Your task to perform on an android device: Open internet settings Image 0: 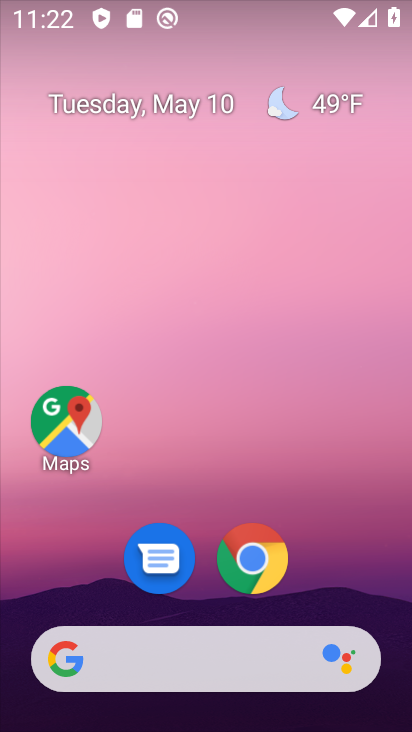
Step 0: drag from (310, 519) to (182, 81)
Your task to perform on an android device: Open internet settings Image 1: 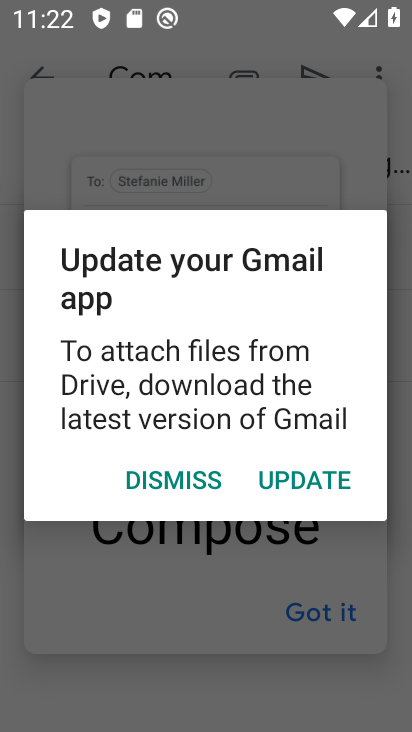
Step 1: press home button
Your task to perform on an android device: Open internet settings Image 2: 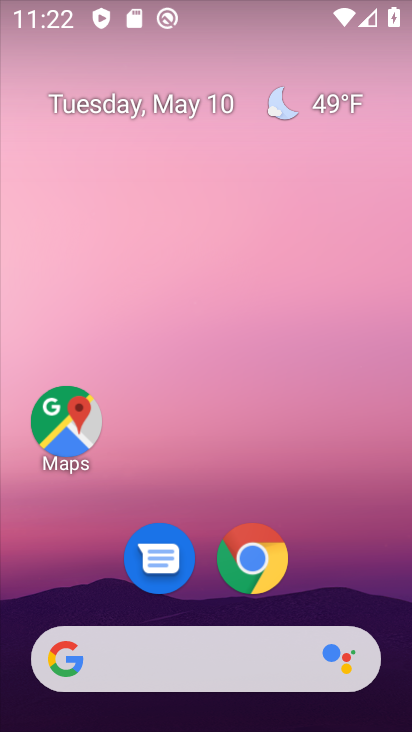
Step 2: drag from (338, 564) to (296, 47)
Your task to perform on an android device: Open internet settings Image 3: 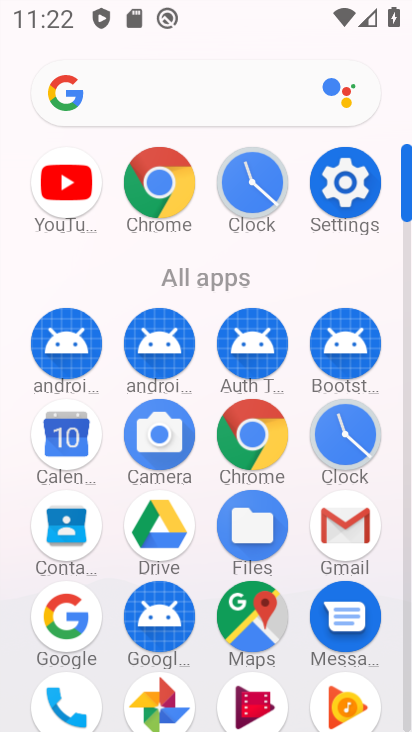
Step 3: click (319, 179)
Your task to perform on an android device: Open internet settings Image 4: 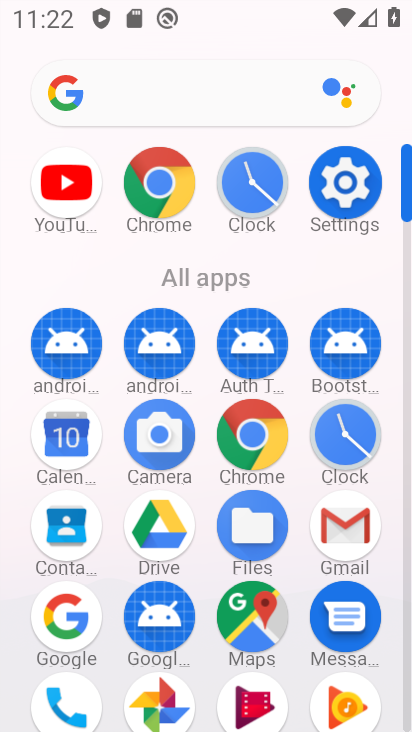
Step 4: click (319, 179)
Your task to perform on an android device: Open internet settings Image 5: 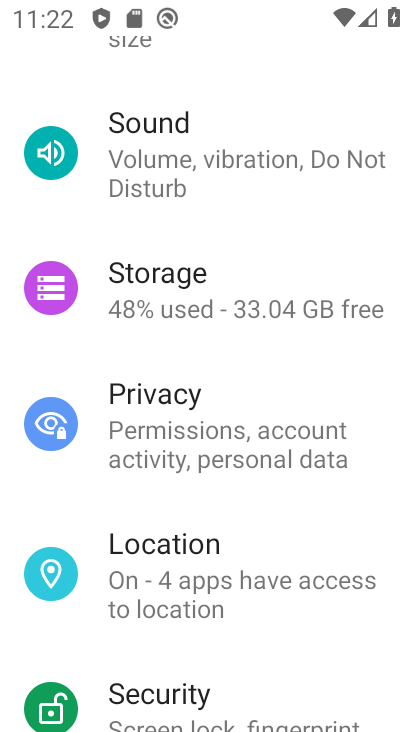
Step 5: drag from (180, 208) to (263, 705)
Your task to perform on an android device: Open internet settings Image 6: 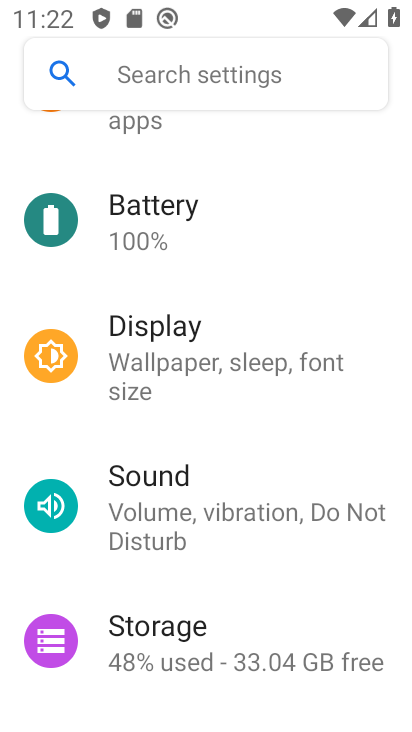
Step 6: drag from (161, 276) to (210, 719)
Your task to perform on an android device: Open internet settings Image 7: 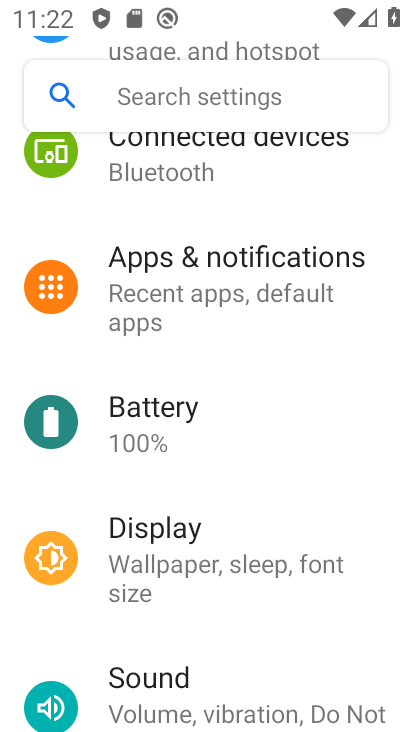
Step 7: drag from (179, 377) to (181, 728)
Your task to perform on an android device: Open internet settings Image 8: 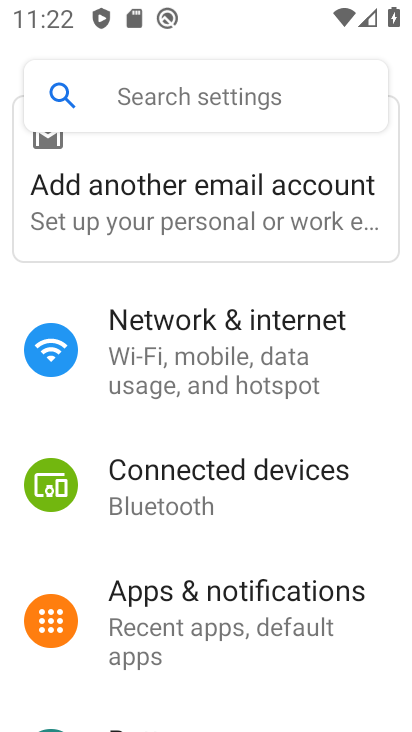
Step 8: click (150, 342)
Your task to perform on an android device: Open internet settings Image 9: 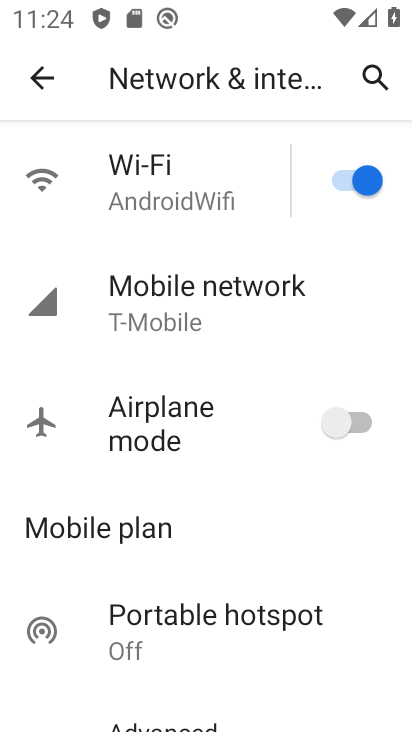
Step 9: task complete